Your task to perform on an android device: Find coffee shops on Maps Image 0: 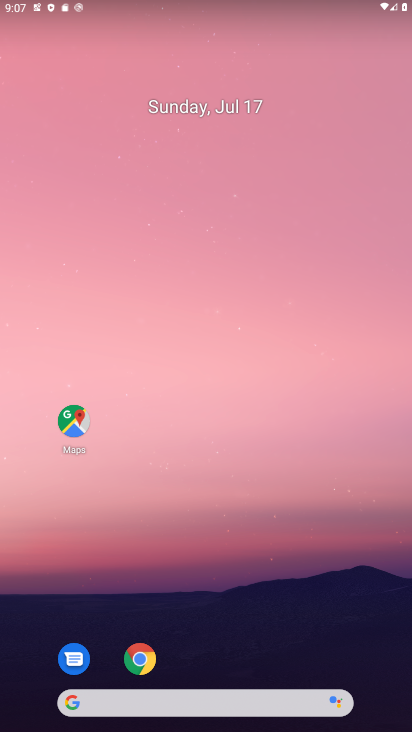
Step 0: click (66, 414)
Your task to perform on an android device: Find coffee shops on Maps Image 1: 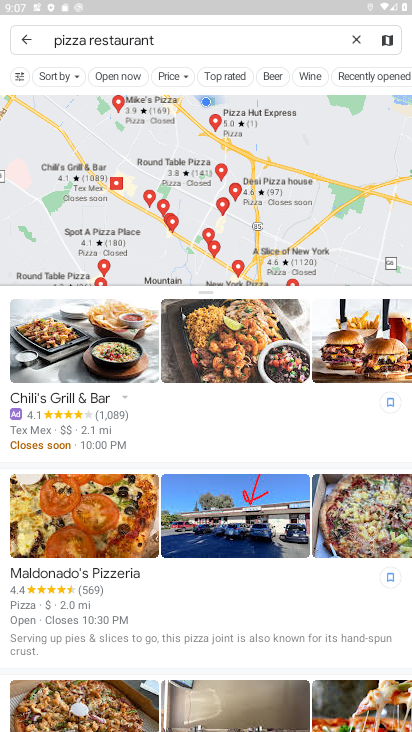
Step 1: click (348, 39)
Your task to perform on an android device: Find coffee shops on Maps Image 2: 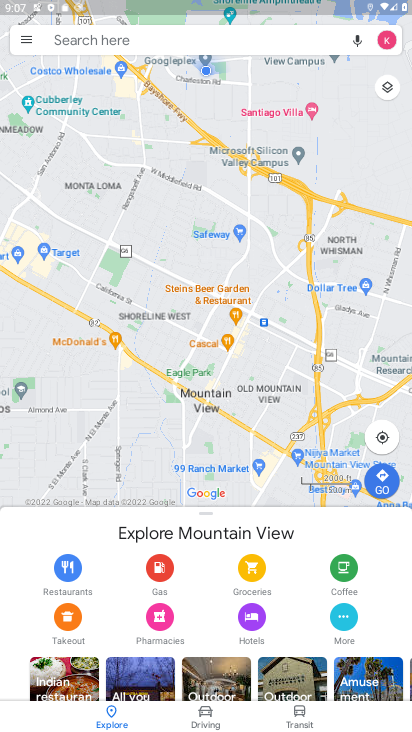
Step 2: click (152, 44)
Your task to perform on an android device: Find coffee shops on Maps Image 3: 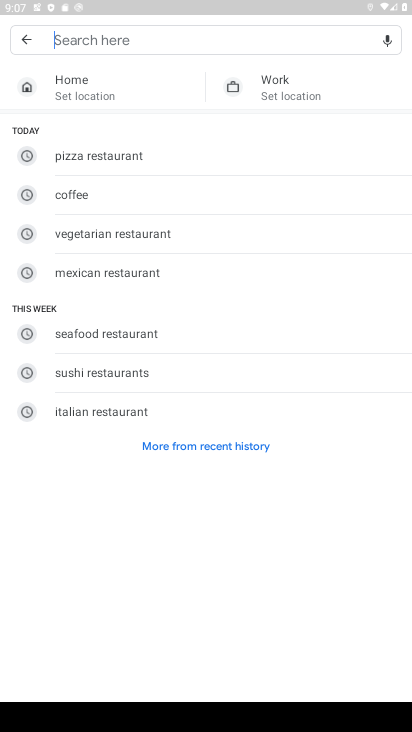
Step 3: type "coffee shops"
Your task to perform on an android device: Find coffee shops on Maps Image 4: 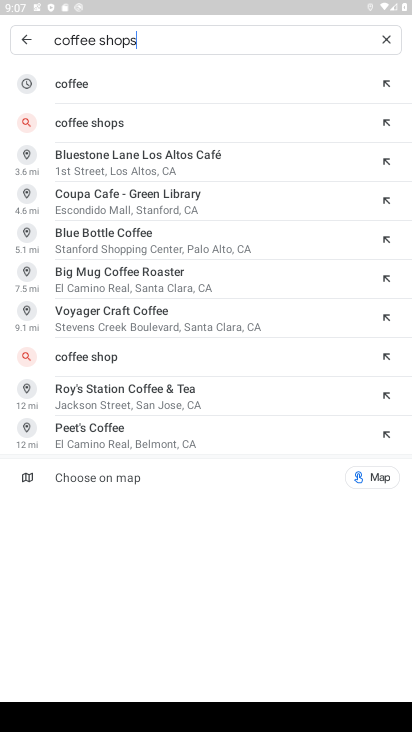
Step 4: click (205, 124)
Your task to perform on an android device: Find coffee shops on Maps Image 5: 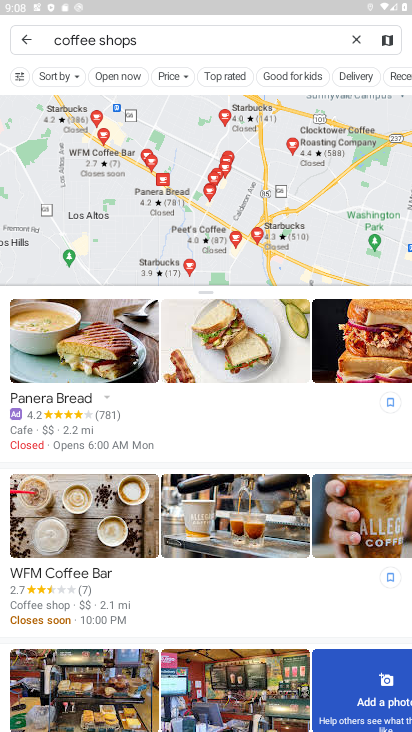
Step 5: task complete